Your task to perform on an android device: Open Google Chrome and open the bookmarks view Image 0: 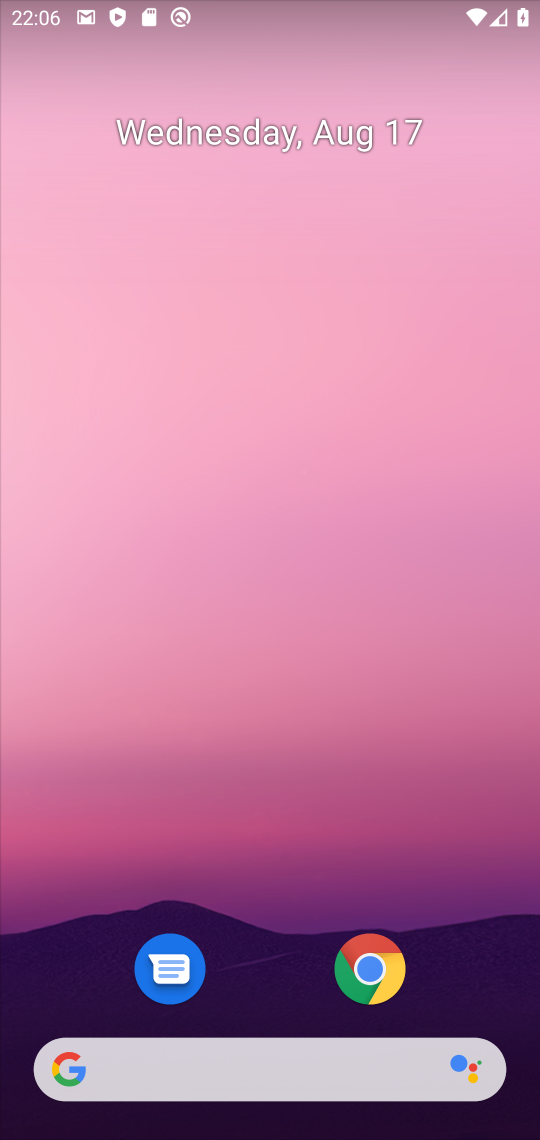
Step 0: click (373, 971)
Your task to perform on an android device: Open Google Chrome and open the bookmarks view Image 1: 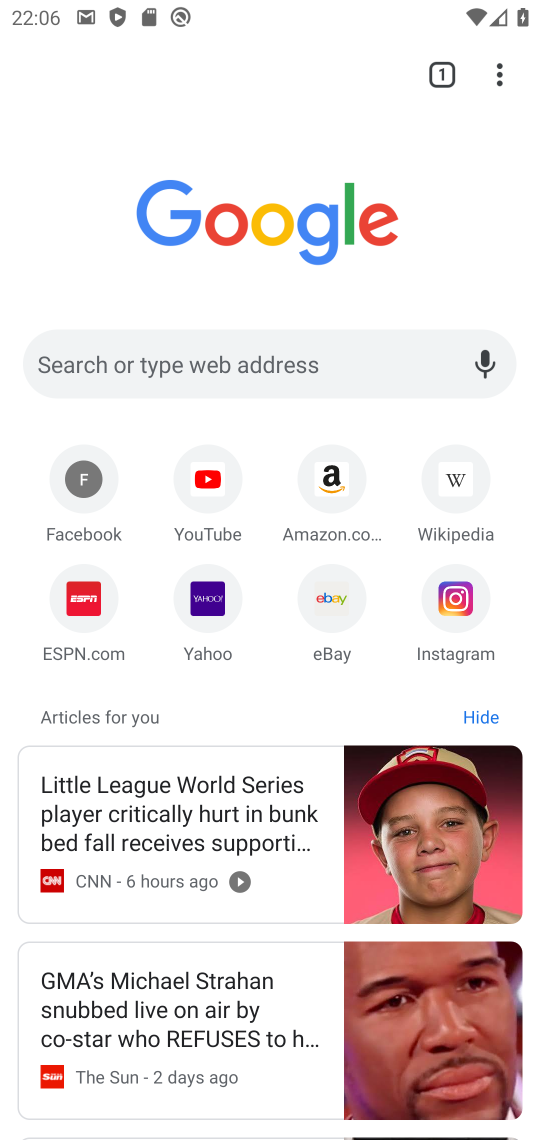
Step 1: click (499, 81)
Your task to perform on an android device: Open Google Chrome and open the bookmarks view Image 2: 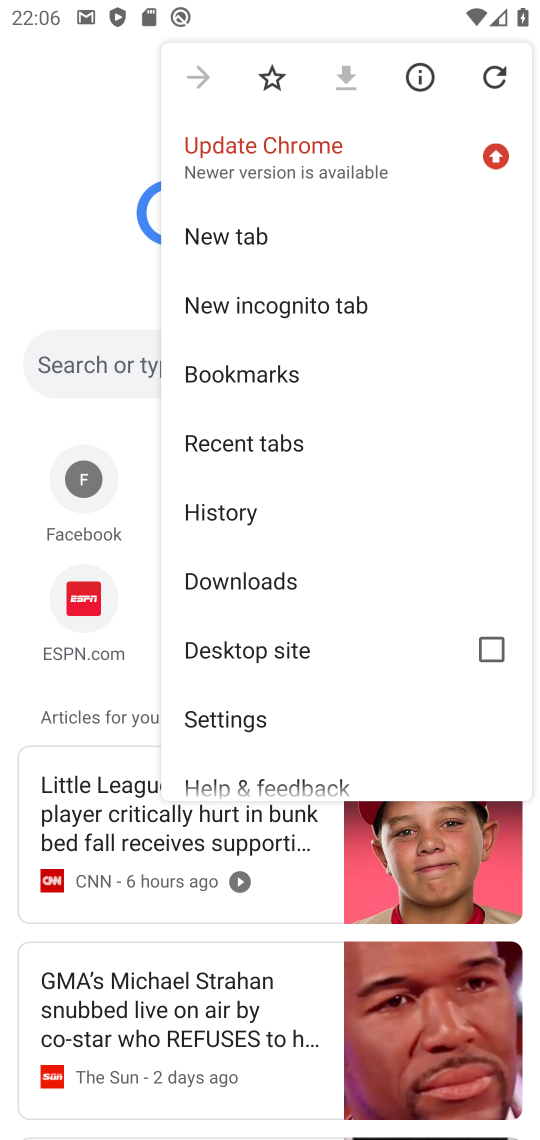
Step 2: click (268, 371)
Your task to perform on an android device: Open Google Chrome and open the bookmarks view Image 3: 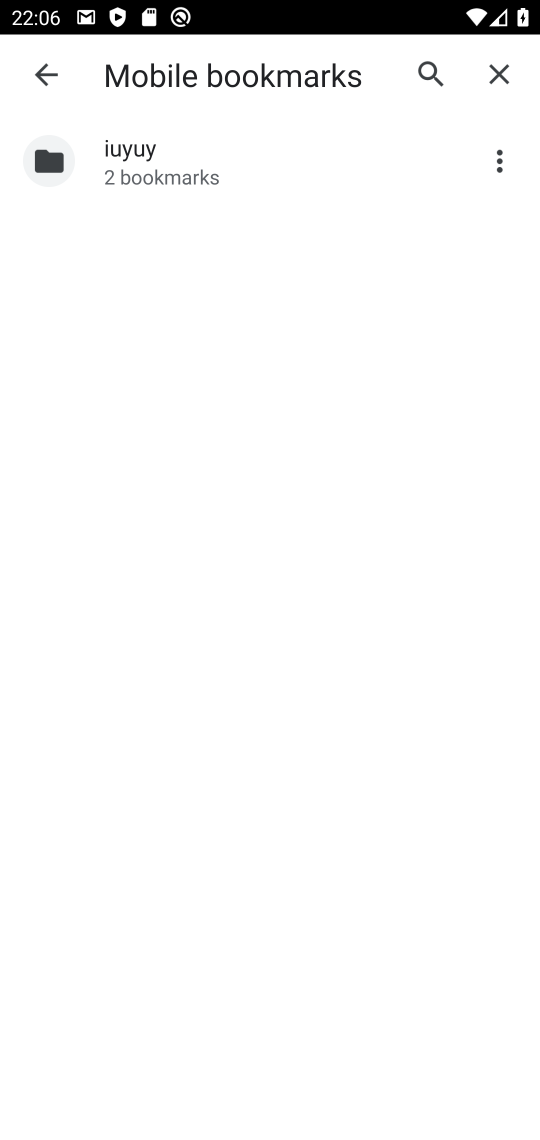
Step 3: click (147, 154)
Your task to perform on an android device: Open Google Chrome and open the bookmarks view Image 4: 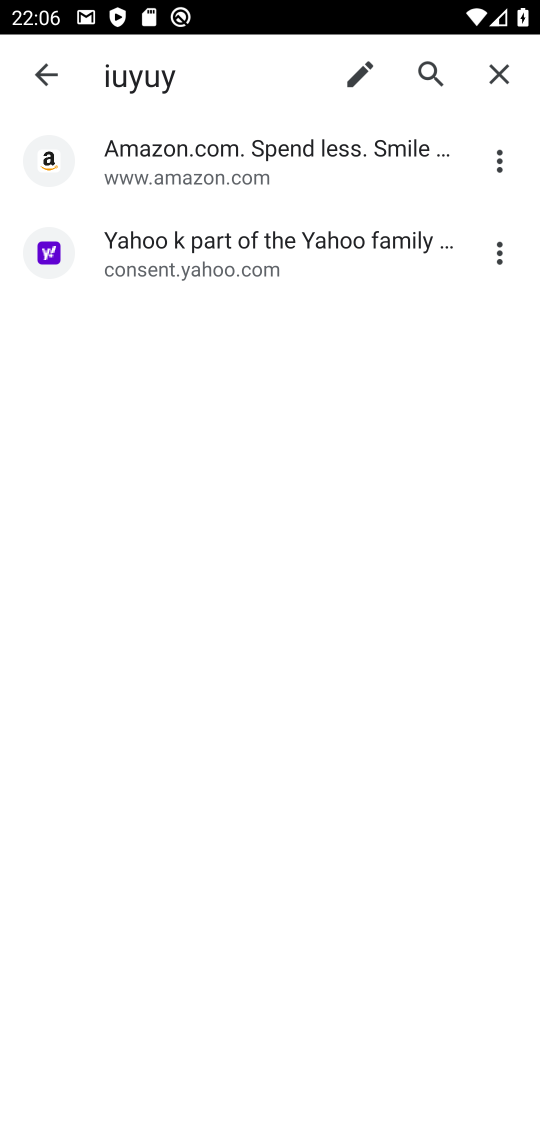
Step 4: task complete